Your task to perform on an android device: all mails in gmail Image 0: 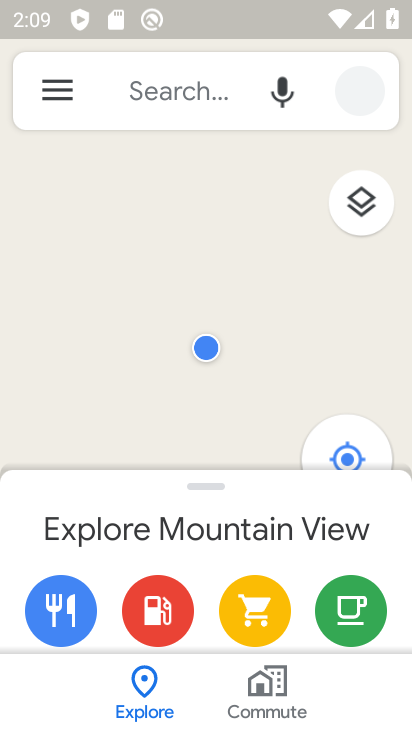
Step 0: press home button
Your task to perform on an android device: all mails in gmail Image 1: 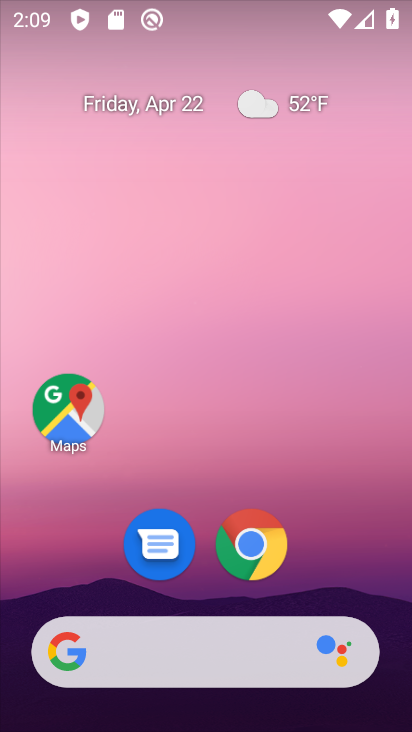
Step 1: drag from (208, 478) to (142, 4)
Your task to perform on an android device: all mails in gmail Image 2: 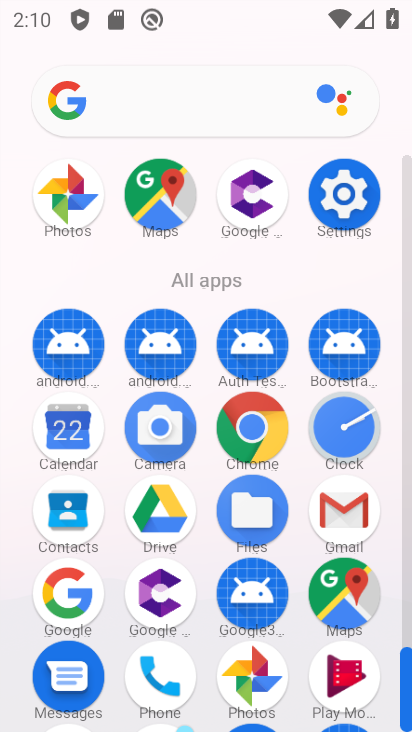
Step 2: click (342, 508)
Your task to perform on an android device: all mails in gmail Image 3: 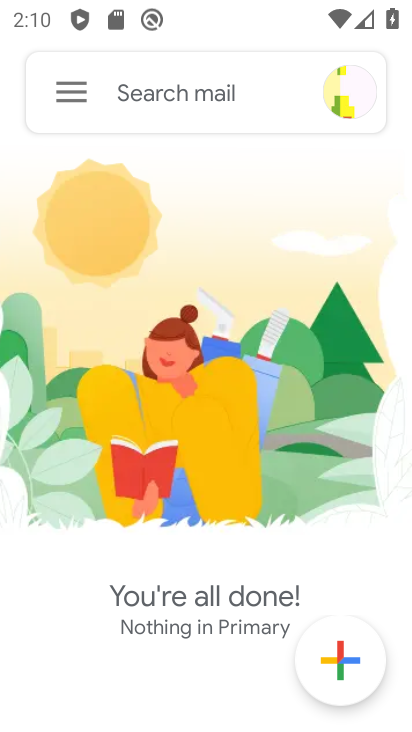
Step 3: click (75, 89)
Your task to perform on an android device: all mails in gmail Image 4: 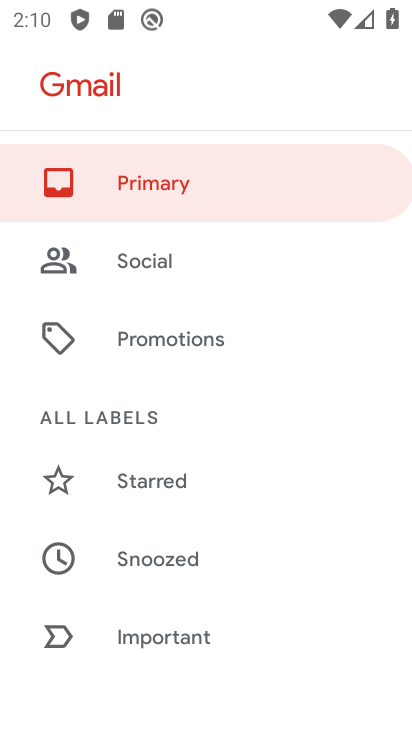
Step 4: drag from (163, 598) to (216, 211)
Your task to perform on an android device: all mails in gmail Image 5: 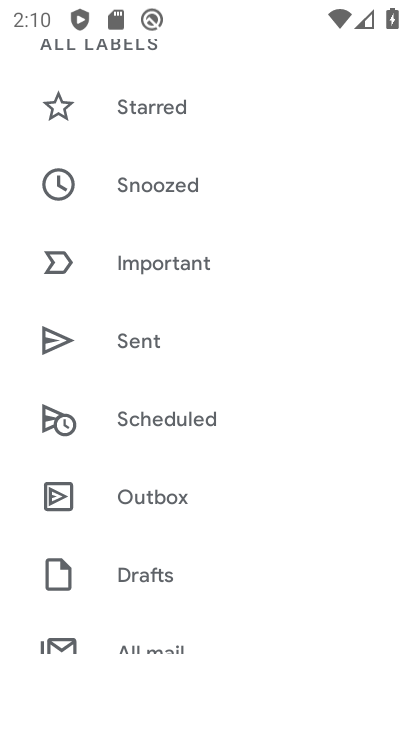
Step 5: drag from (147, 604) to (147, 305)
Your task to perform on an android device: all mails in gmail Image 6: 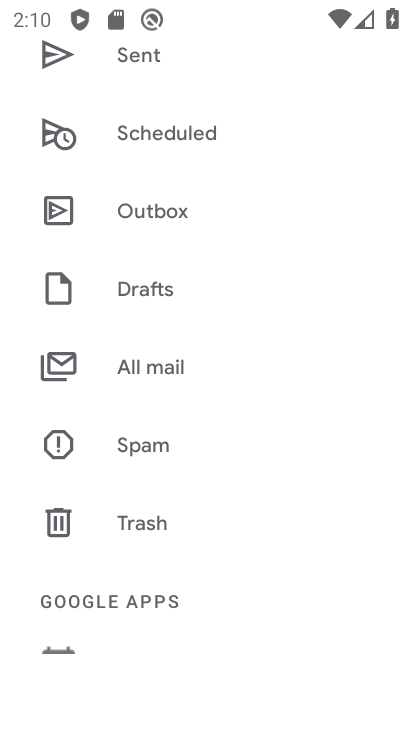
Step 6: click (178, 400)
Your task to perform on an android device: all mails in gmail Image 7: 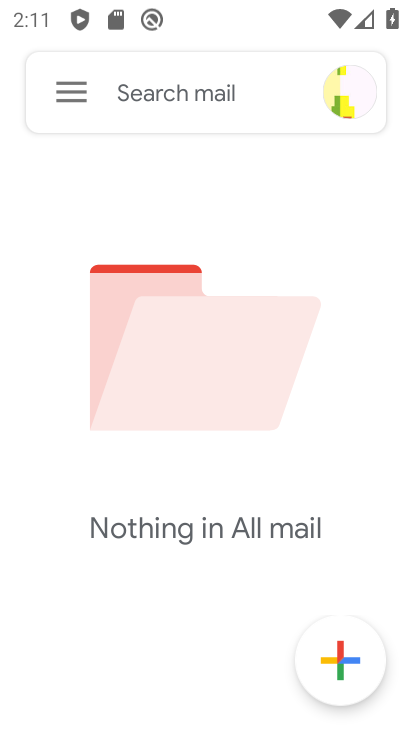
Step 7: task complete